Your task to perform on an android device: open app "AliExpress" (install if not already installed) Image 0: 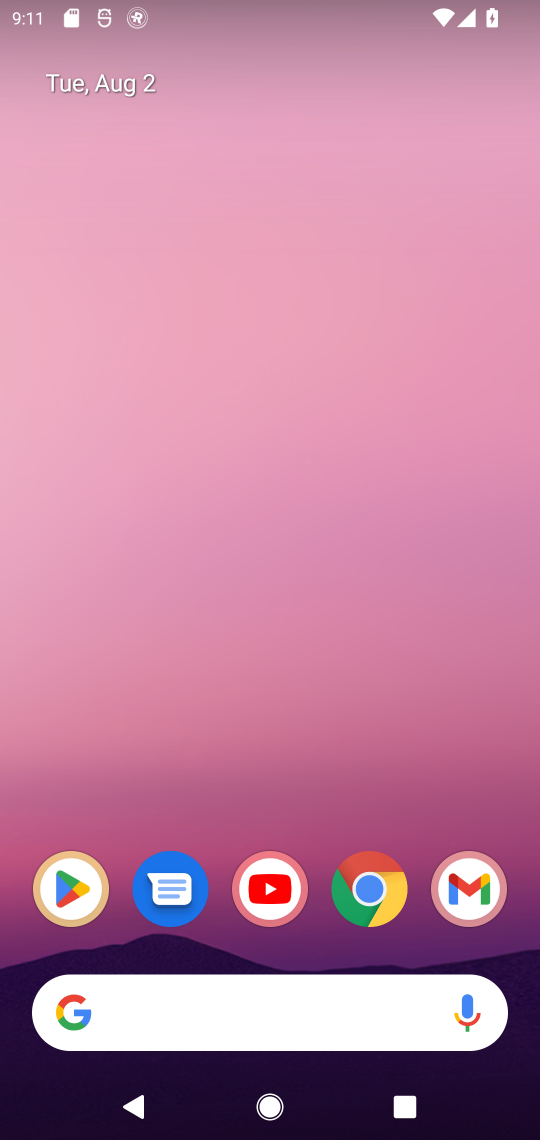
Step 0: press home button
Your task to perform on an android device: open app "AliExpress" (install if not already installed) Image 1: 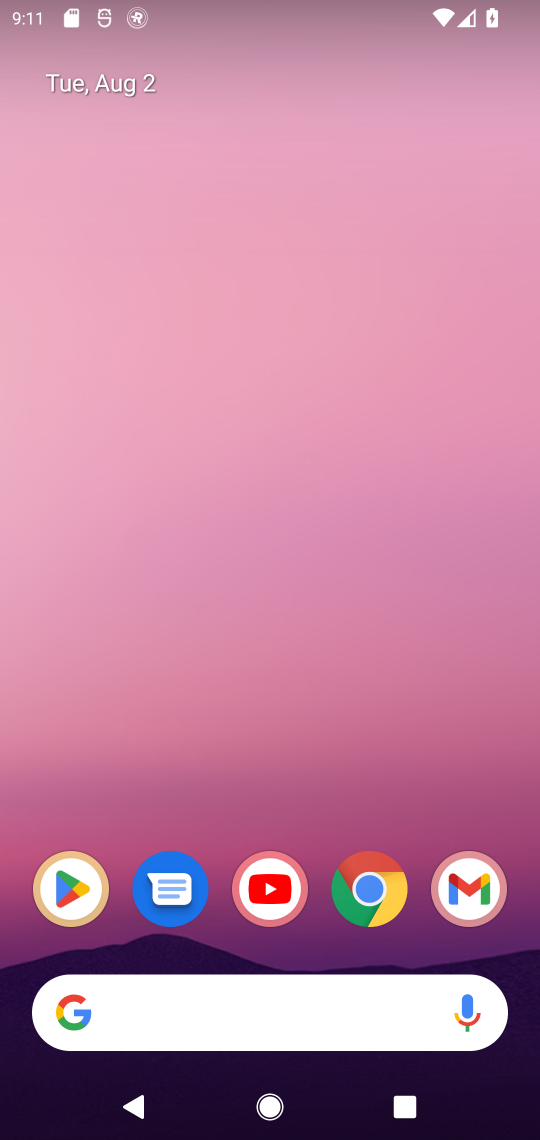
Step 1: click (67, 893)
Your task to perform on an android device: open app "AliExpress" (install if not already installed) Image 2: 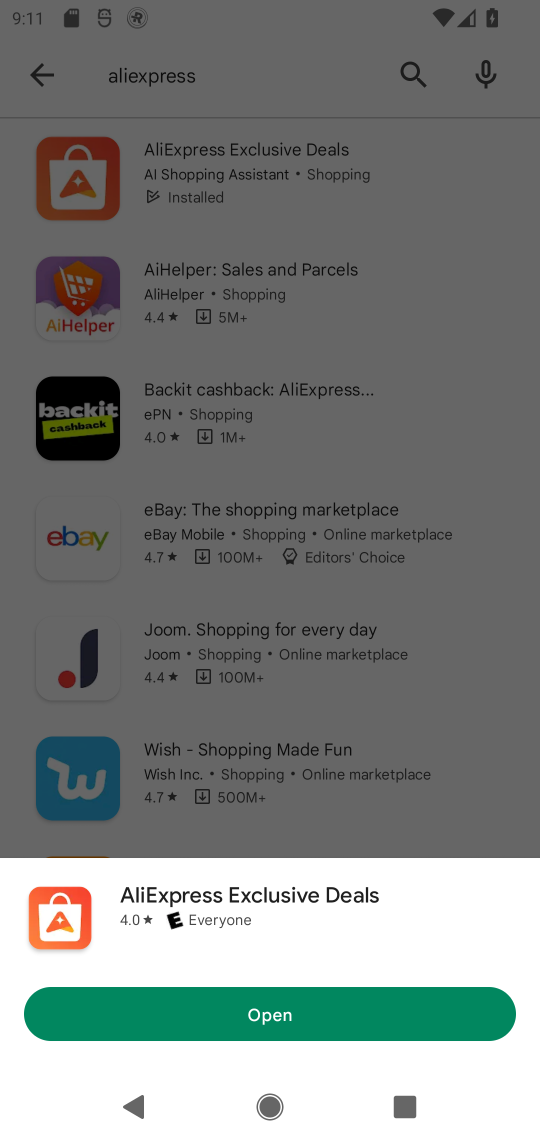
Step 2: click (234, 1018)
Your task to perform on an android device: open app "AliExpress" (install if not already installed) Image 3: 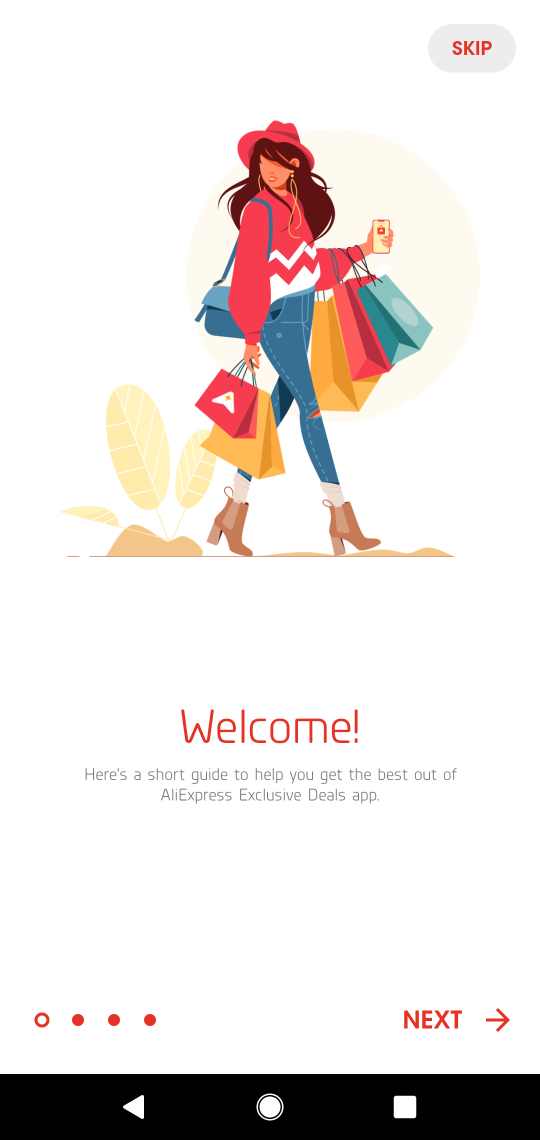
Step 3: task complete